Your task to perform on an android device: toggle show notifications on the lock screen Image 0: 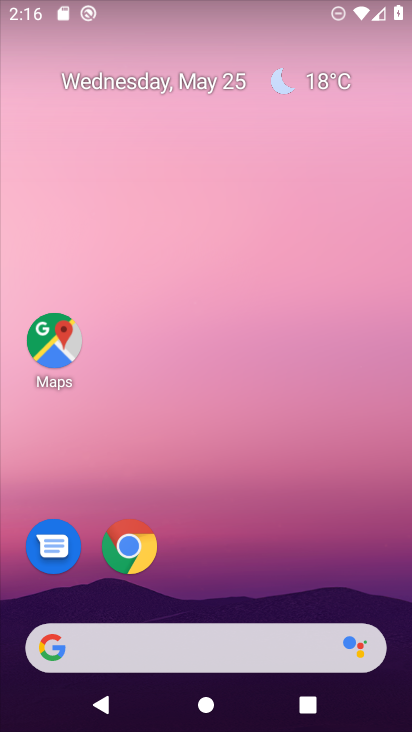
Step 0: drag from (222, 584) to (243, 0)
Your task to perform on an android device: toggle show notifications on the lock screen Image 1: 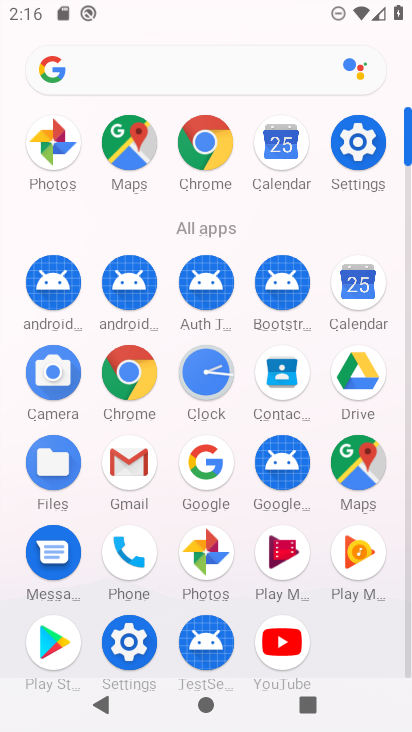
Step 1: click (130, 640)
Your task to perform on an android device: toggle show notifications on the lock screen Image 2: 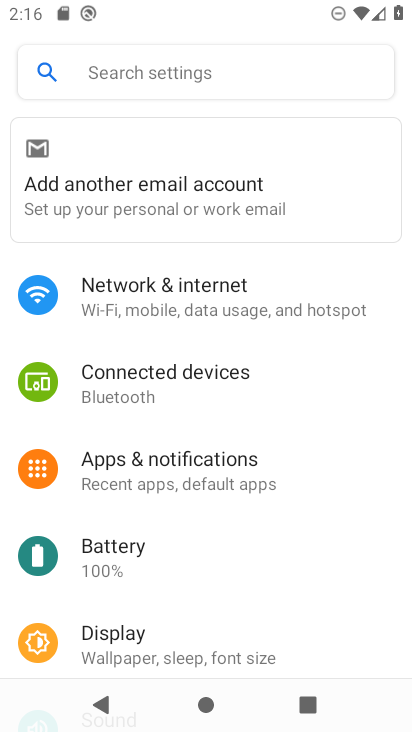
Step 2: click (215, 473)
Your task to perform on an android device: toggle show notifications on the lock screen Image 3: 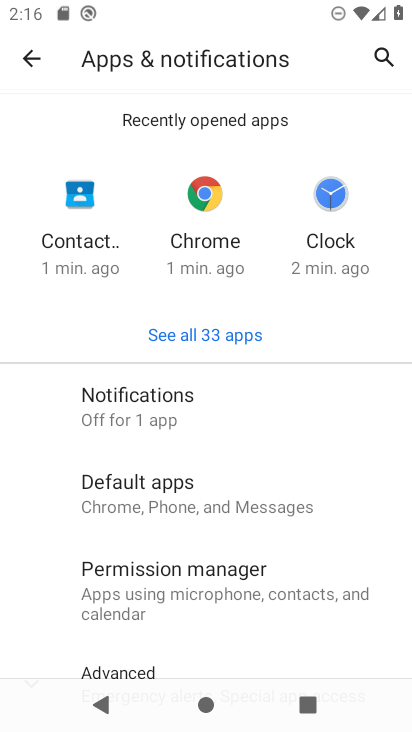
Step 3: click (132, 398)
Your task to perform on an android device: toggle show notifications on the lock screen Image 4: 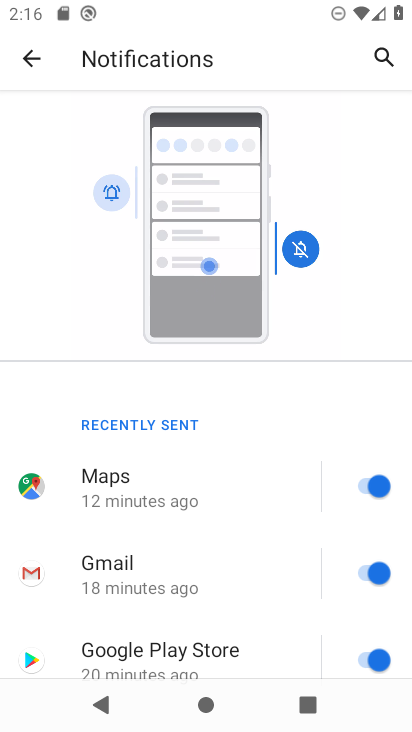
Step 4: drag from (186, 551) to (205, 227)
Your task to perform on an android device: toggle show notifications on the lock screen Image 5: 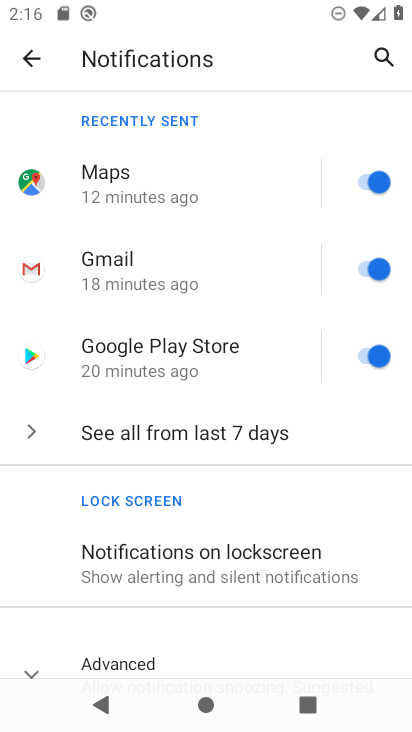
Step 5: drag from (176, 516) to (193, 331)
Your task to perform on an android device: toggle show notifications on the lock screen Image 6: 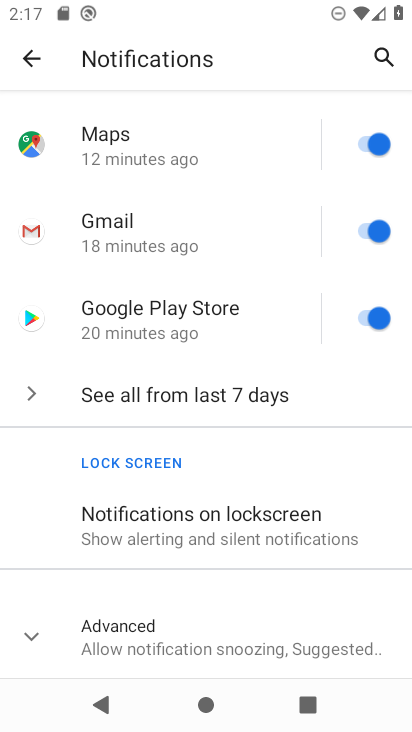
Step 6: click (159, 526)
Your task to perform on an android device: toggle show notifications on the lock screen Image 7: 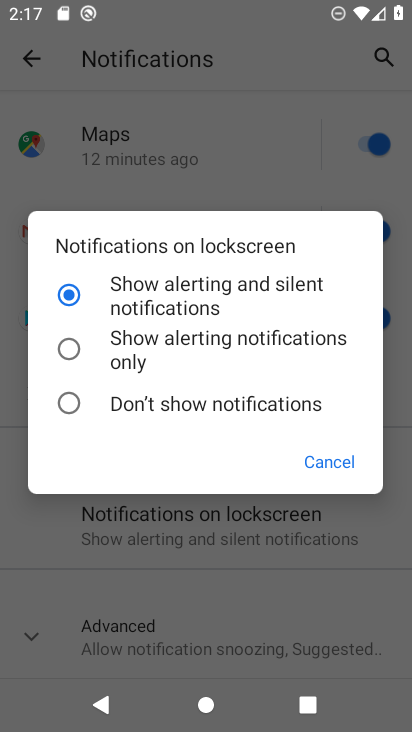
Step 7: click (223, 412)
Your task to perform on an android device: toggle show notifications on the lock screen Image 8: 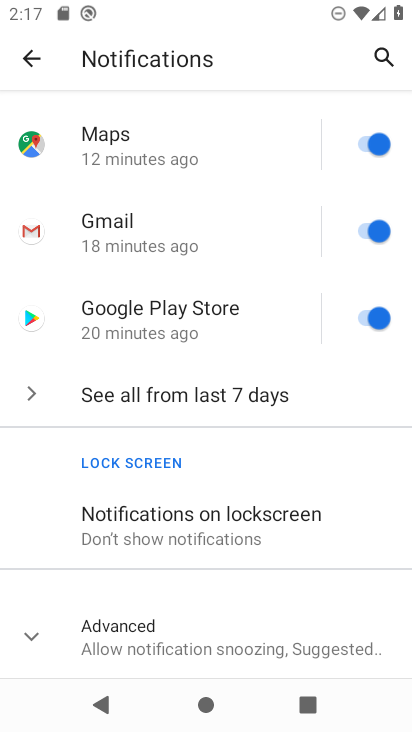
Step 8: task complete